Your task to perform on an android device: find which apps use the phone's location Image 0: 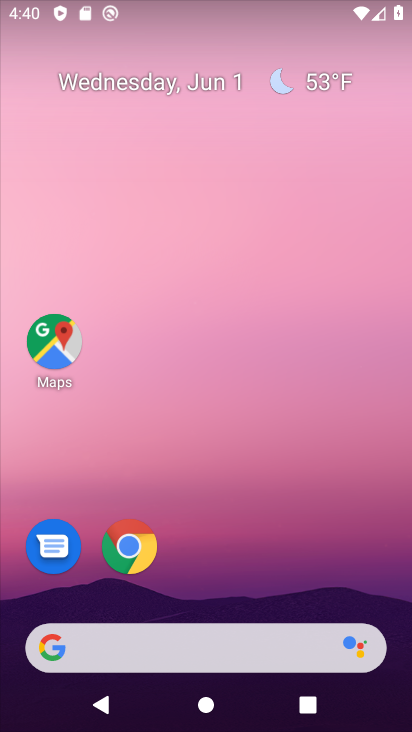
Step 0: drag from (249, 495) to (212, 9)
Your task to perform on an android device: find which apps use the phone's location Image 1: 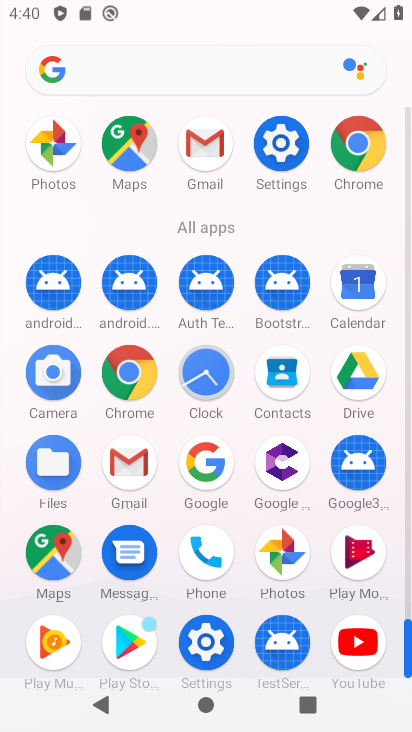
Step 1: drag from (2, 563) to (2, 255)
Your task to perform on an android device: find which apps use the phone's location Image 2: 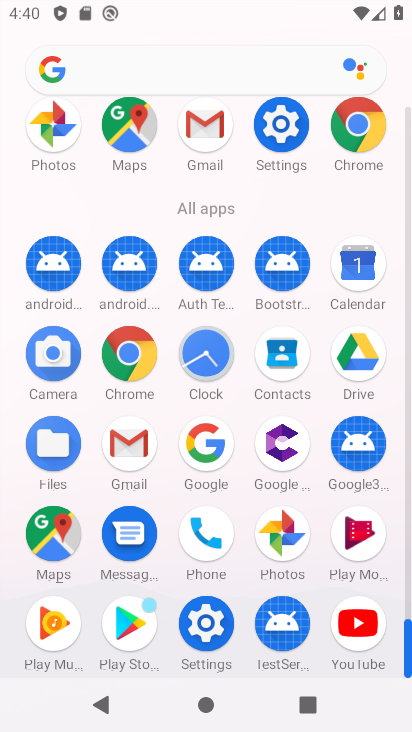
Step 2: click (204, 621)
Your task to perform on an android device: find which apps use the phone's location Image 3: 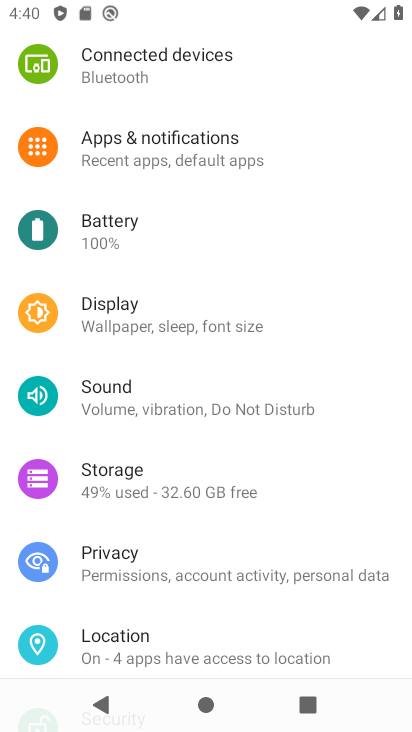
Step 3: click (155, 651)
Your task to perform on an android device: find which apps use the phone's location Image 4: 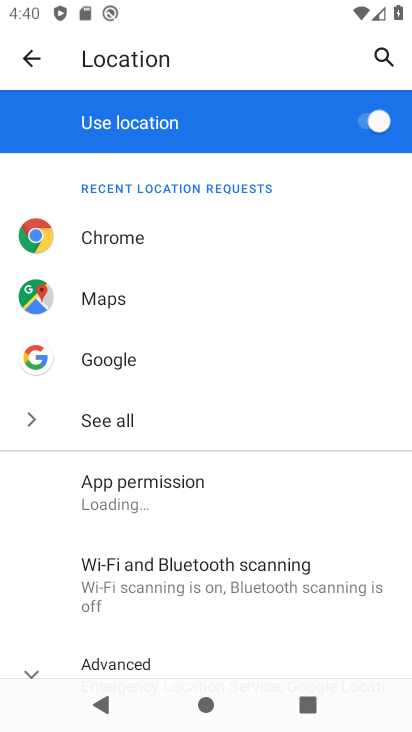
Step 4: click (39, 659)
Your task to perform on an android device: find which apps use the phone's location Image 5: 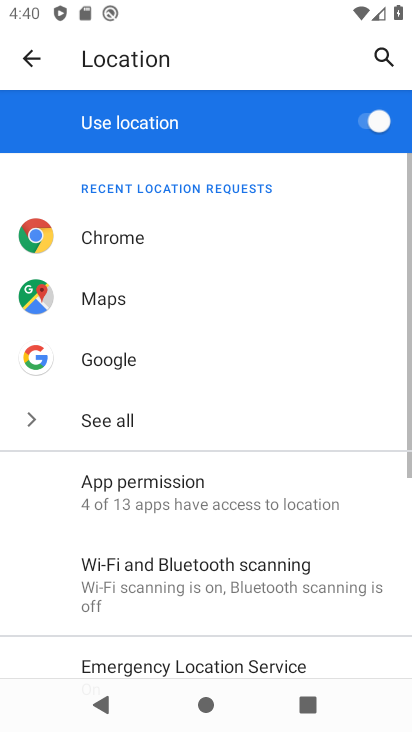
Step 5: drag from (291, 543) to (291, 173)
Your task to perform on an android device: find which apps use the phone's location Image 6: 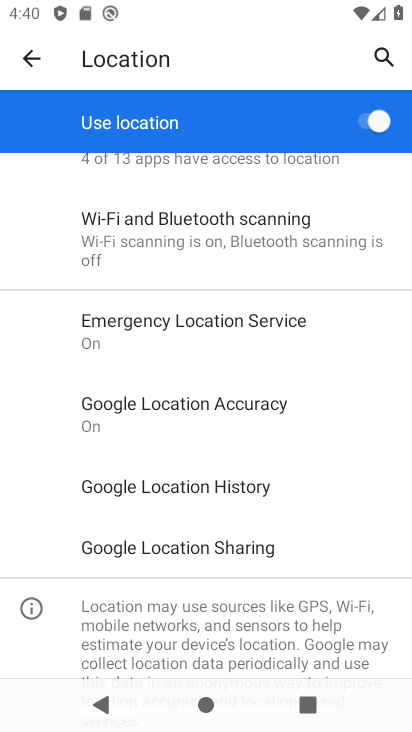
Step 6: drag from (294, 180) to (303, 493)
Your task to perform on an android device: find which apps use the phone's location Image 7: 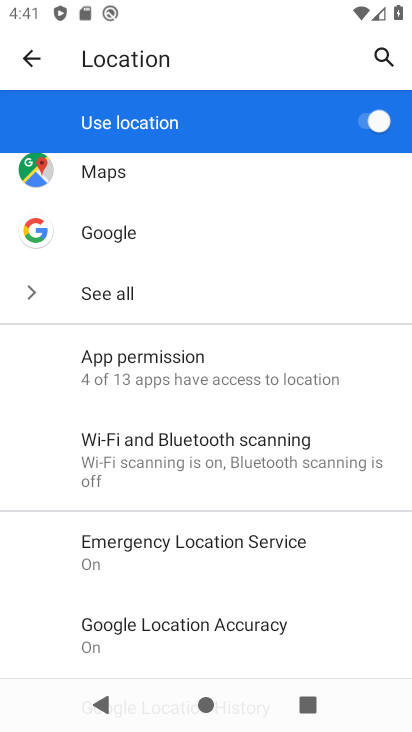
Step 7: click (206, 358)
Your task to perform on an android device: find which apps use the phone's location Image 8: 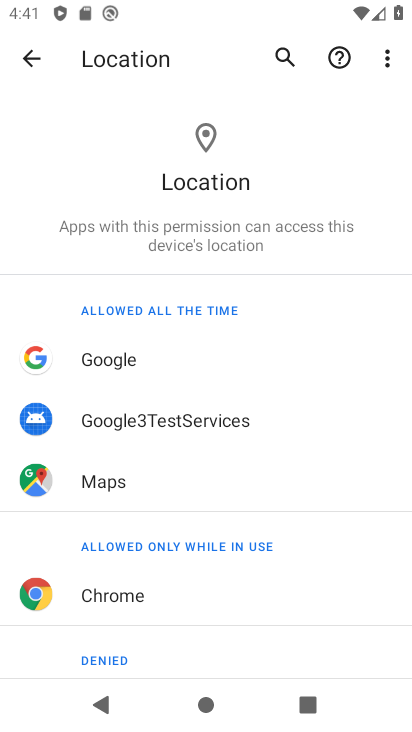
Step 8: task complete